Your task to perform on an android device: Open CNN.com Image 0: 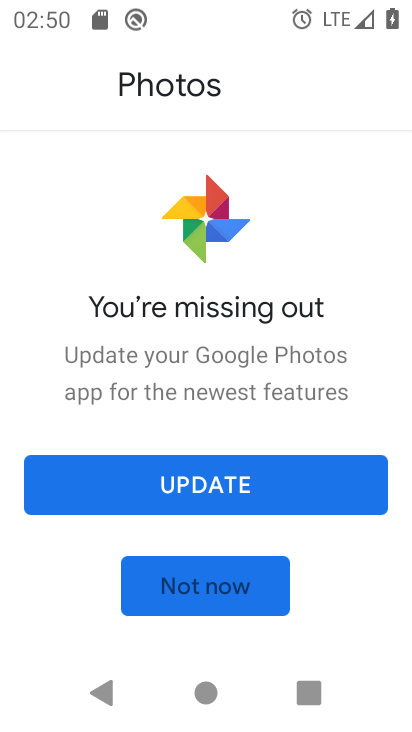
Step 0: press home button
Your task to perform on an android device: Open CNN.com Image 1: 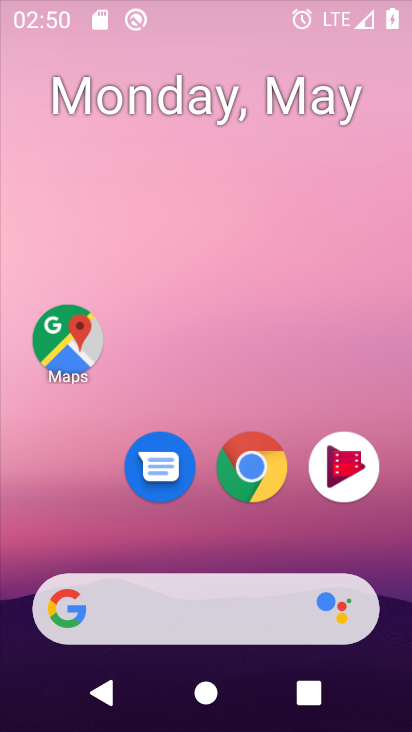
Step 1: drag from (213, 576) to (269, 201)
Your task to perform on an android device: Open CNN.com Image 2: 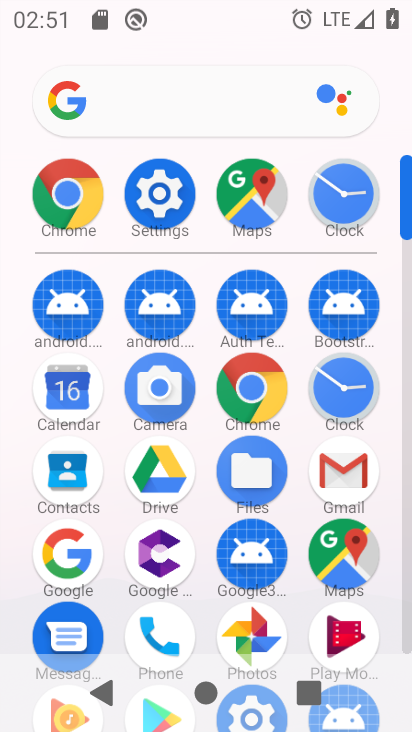
Step 2: click (89, 175)
Your task to perform on an android device: Open CNN.com Image 3: 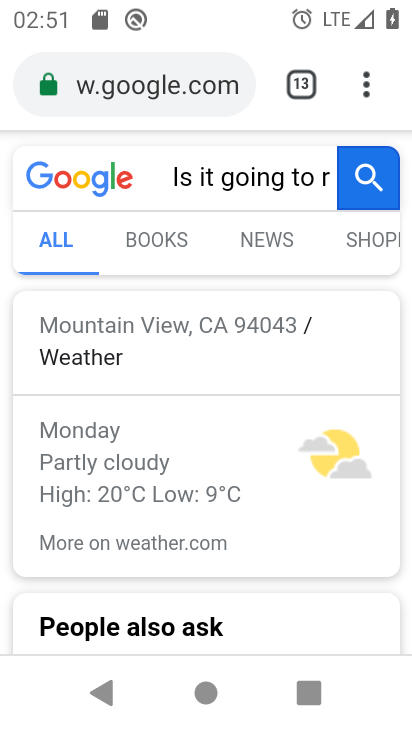
Step 3: click (309, 83)
Your task to perform on an android device: Open CNN.com Image 4: 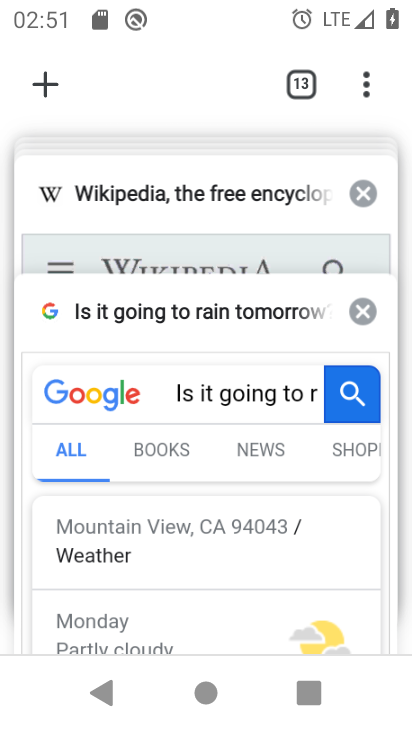
Step 4: drag from (171, 202) to (132, 507)
Your task to perform on an android device: Open CNN.com Image 5: 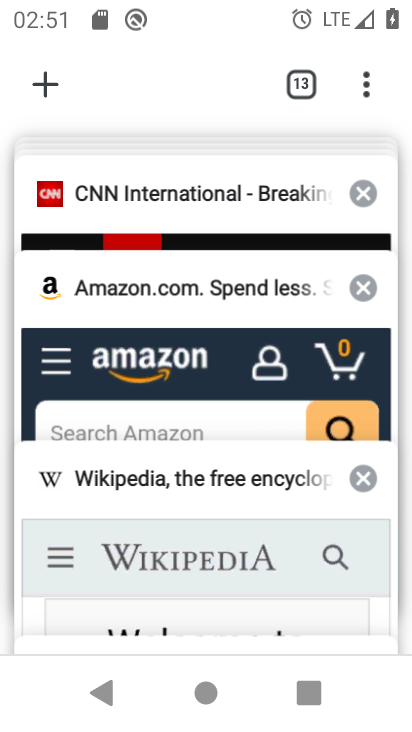
Step 5: click (152, 187)
Your task to perform on an android device: Open CNN.com Image 6: 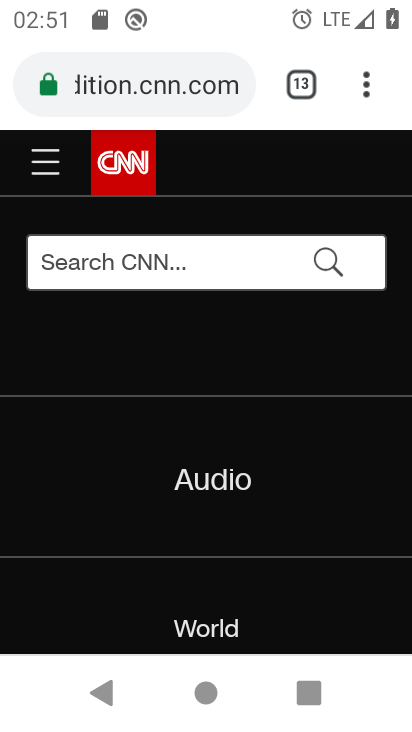
Step 6: task complete